Your task to perform on an android device: open app "Viber Messenger" (install if not already installed) and go to login screen Image 0: 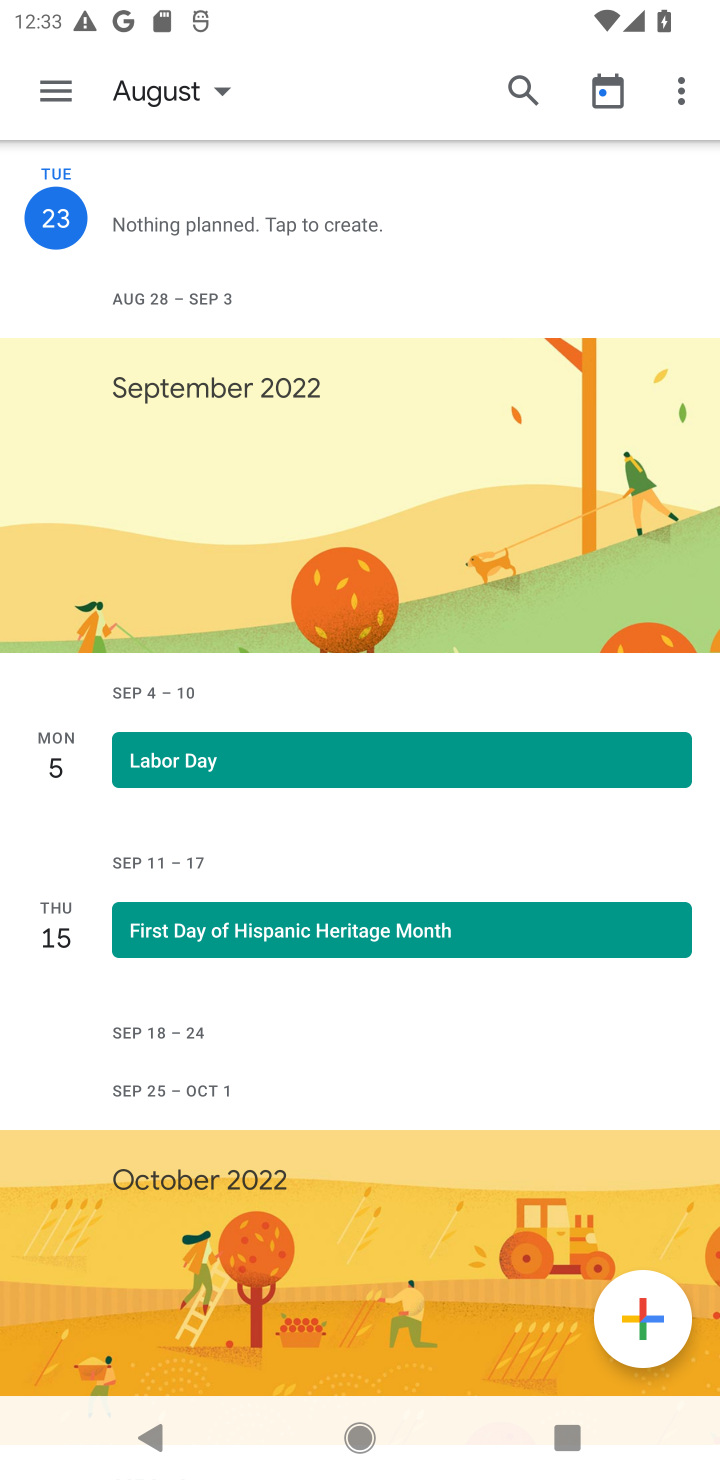
Step 0: press home button
Your task to perform on an android device: open app "Viber Messenger" (install if not already installed) and go to login screen Image 1: 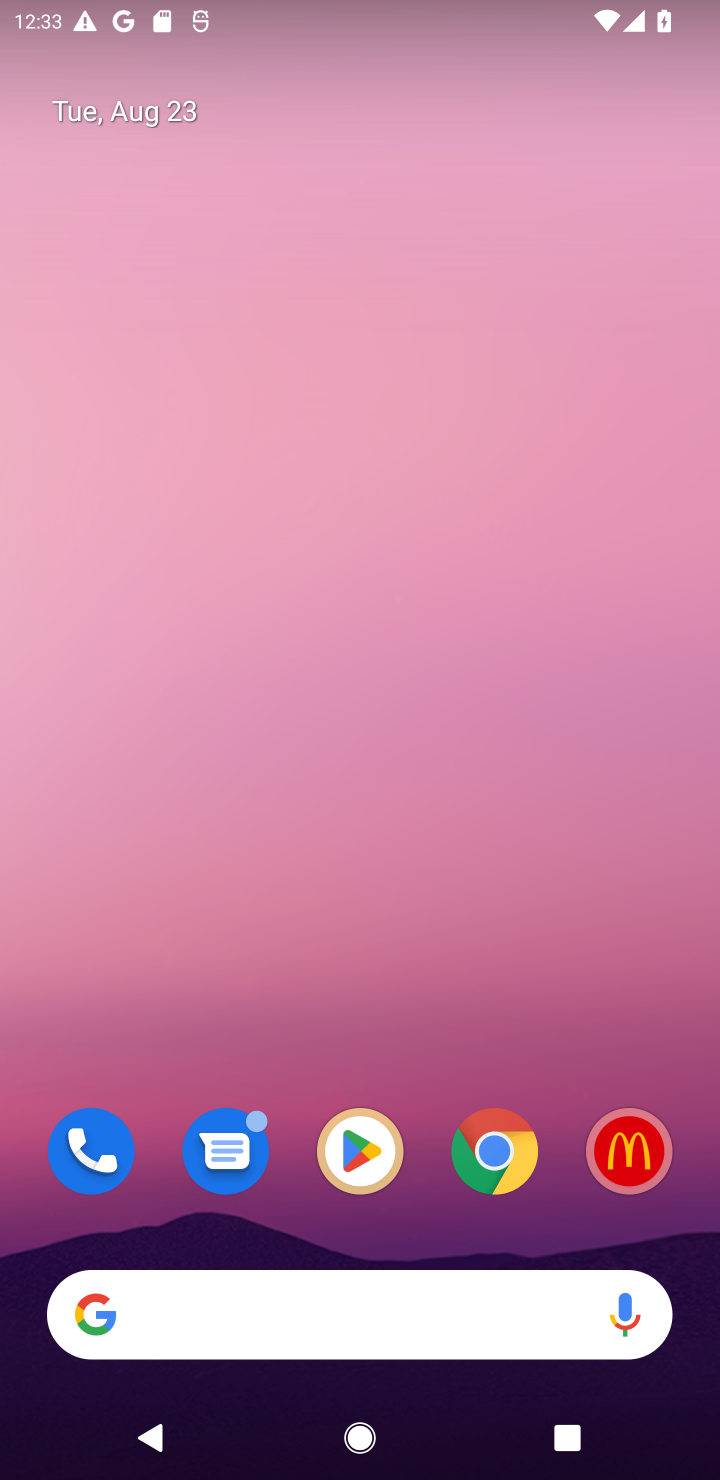
Step 1: click (364, 1155)
Your task to perform on an android device: open app "Viber Messenger" (install if not already installed) and go to login screen Image 2: 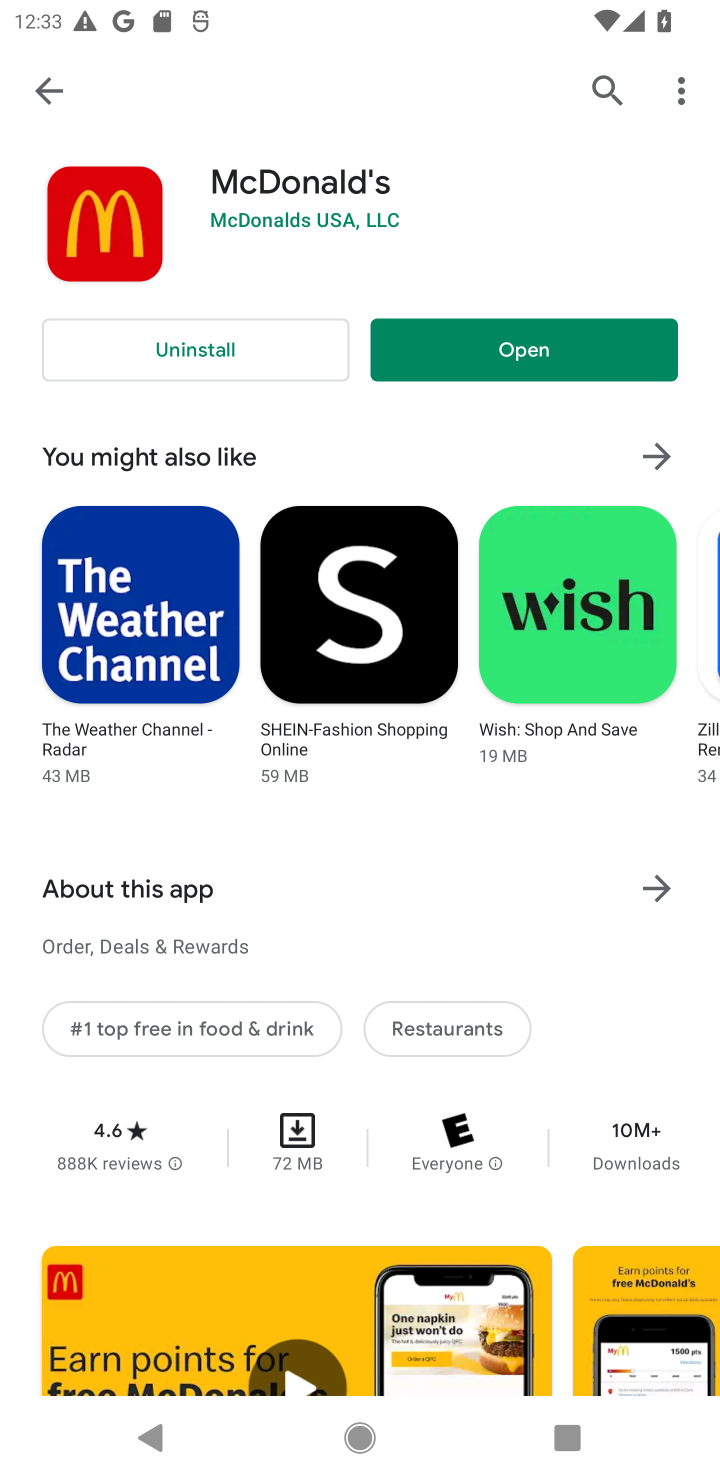
Step 2: click (616, 77)
Your task to perform on an android device: open app "Viber Messenger" (install if not already installed) and go to login screen Image 3: 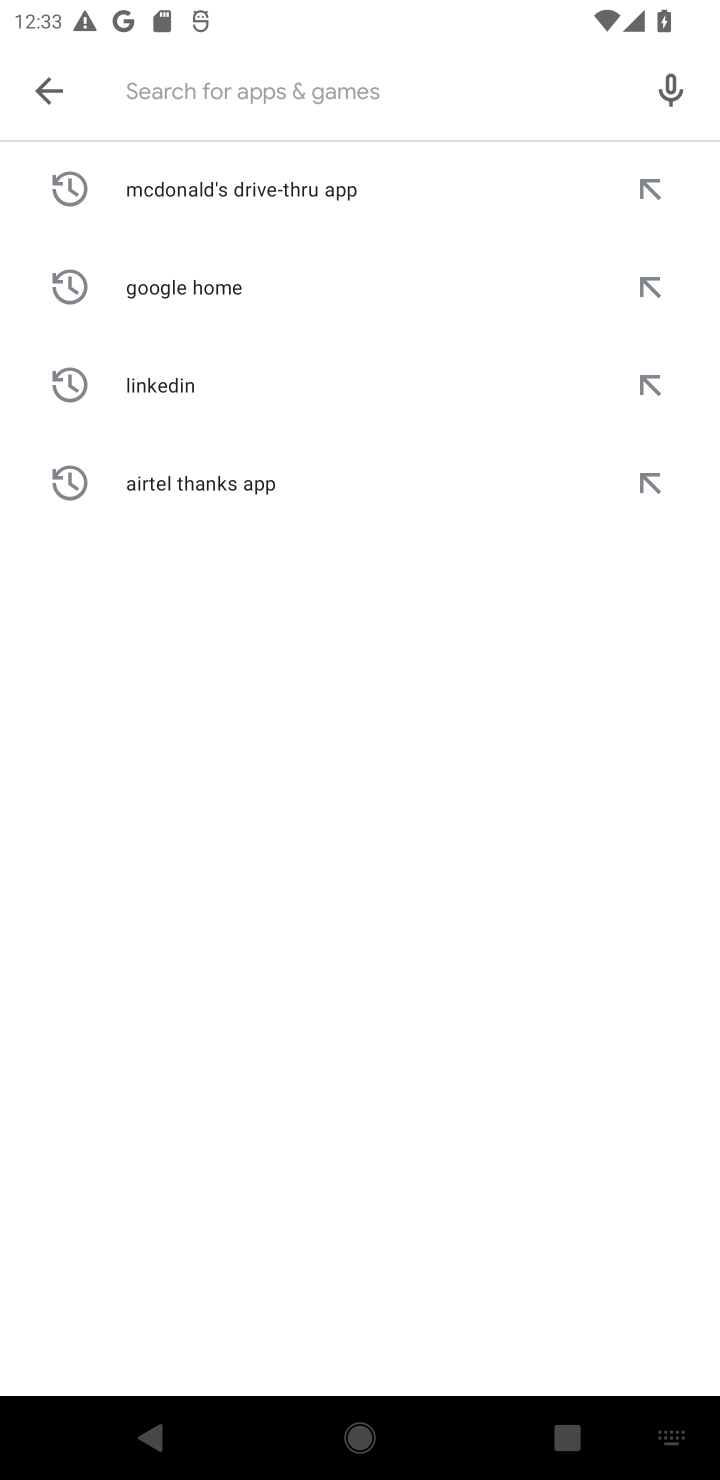
Step 3: type "Viber Messenger"
Your task to perform on an android device: open app "Viber Messenger" (install if not already installed) and go to login screen Image 4: 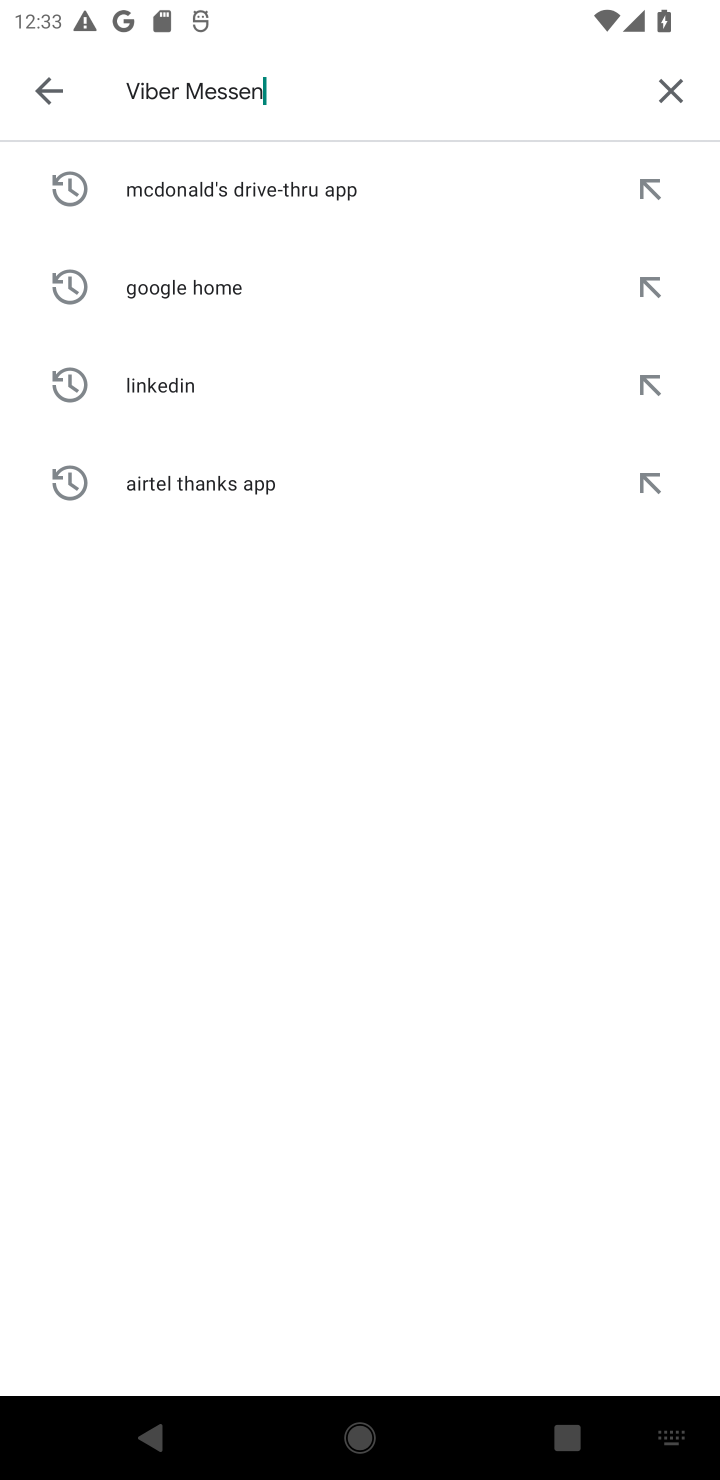
Step 4: type ""
Your task to perform on an android device: open app "Viber Messenger" (install if not already installed) and go to login screen Image 5: 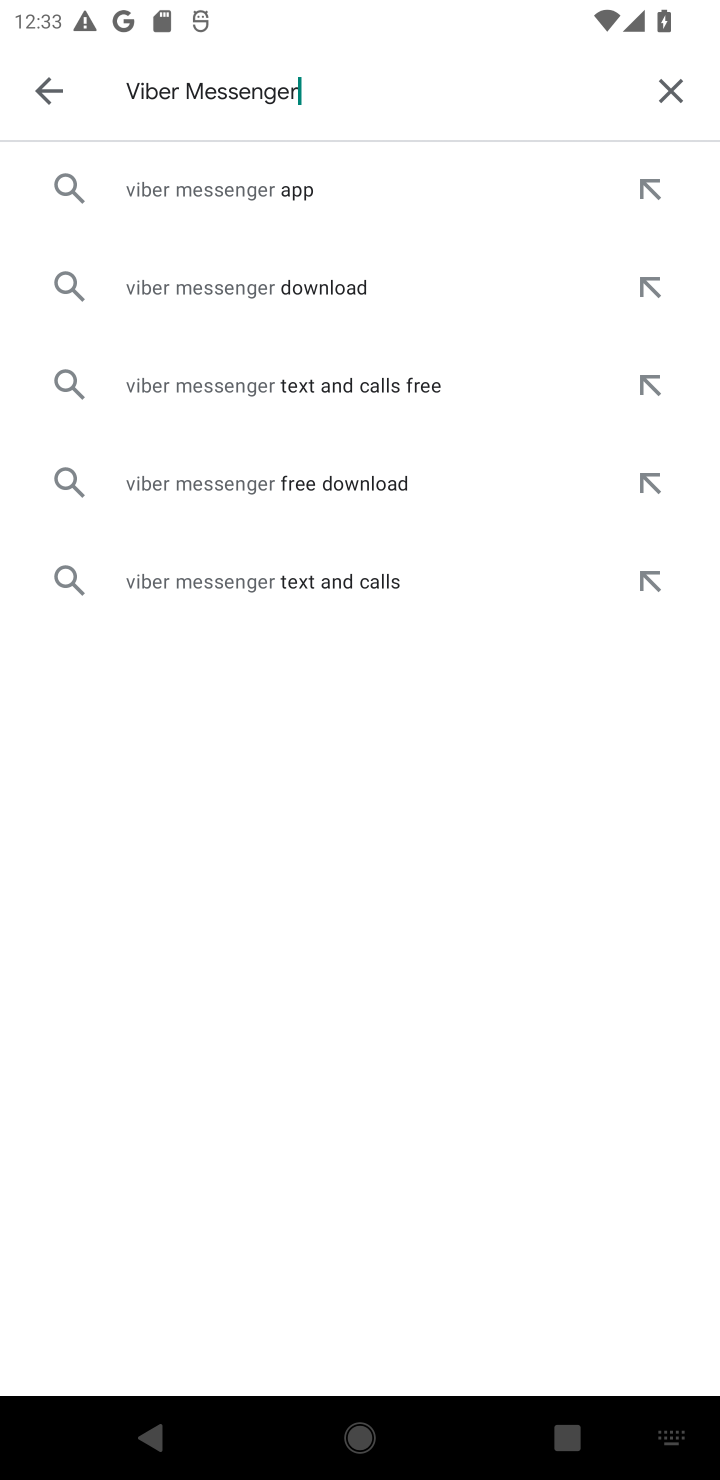
Step 5: click (372, 203)
Your task to perform on an android device: open app "Viber Messenger" (install if not already installed) and go to login screen Image 6: 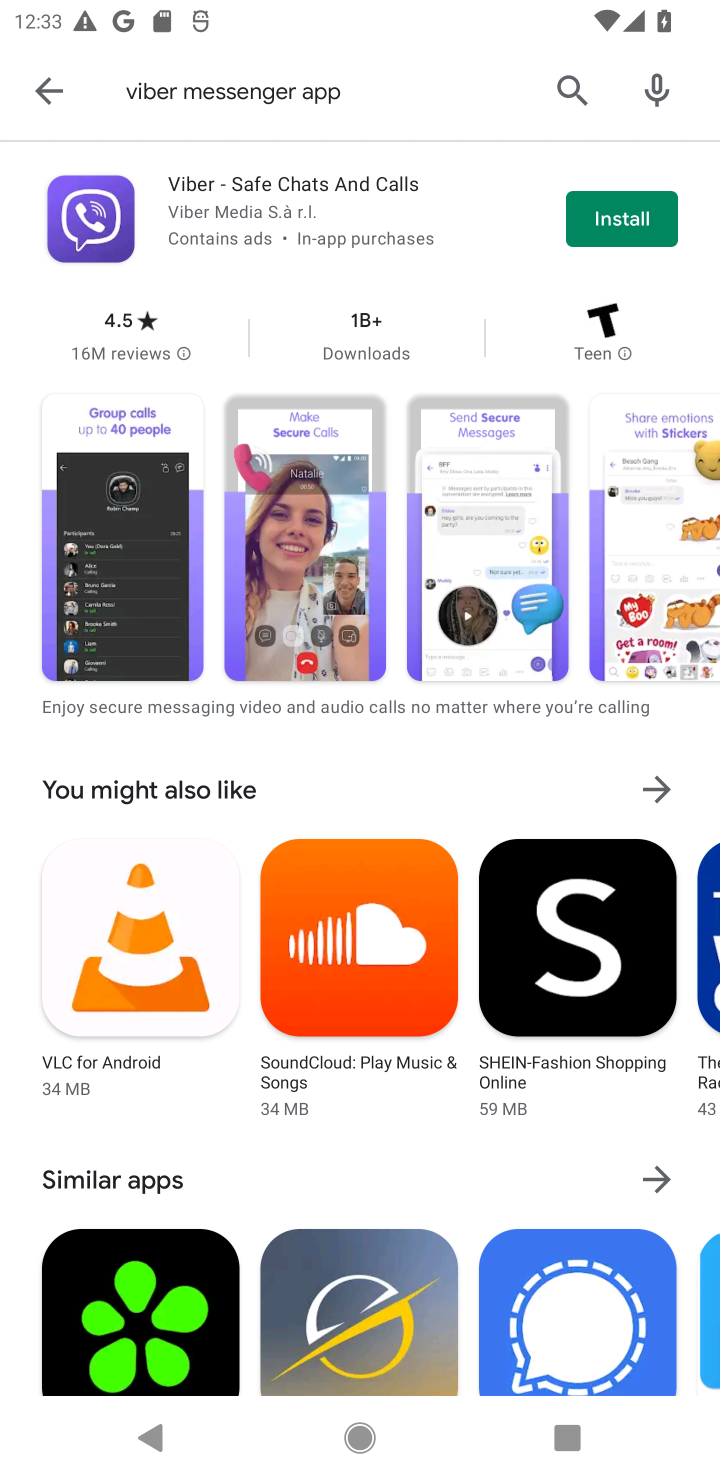
Step 6: click (634, 218)
Your task to perform on an android device: open app "Viber Messenger" (install if not already installed) and go to login screen Image 7: 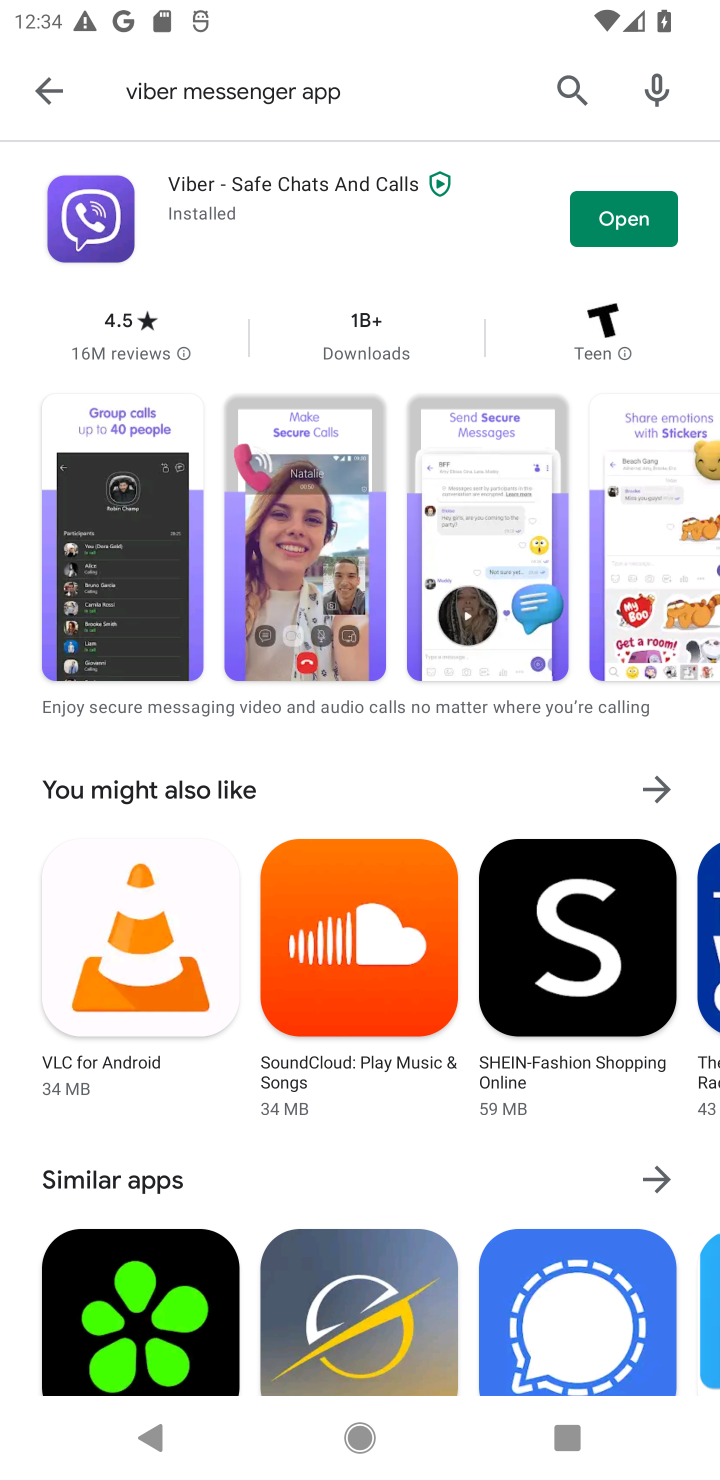
Step 7: click (632, 226)
Your task to perform on an android device: open app "Viber Messenger" (install if not already installed) and go to login screen Image 8: 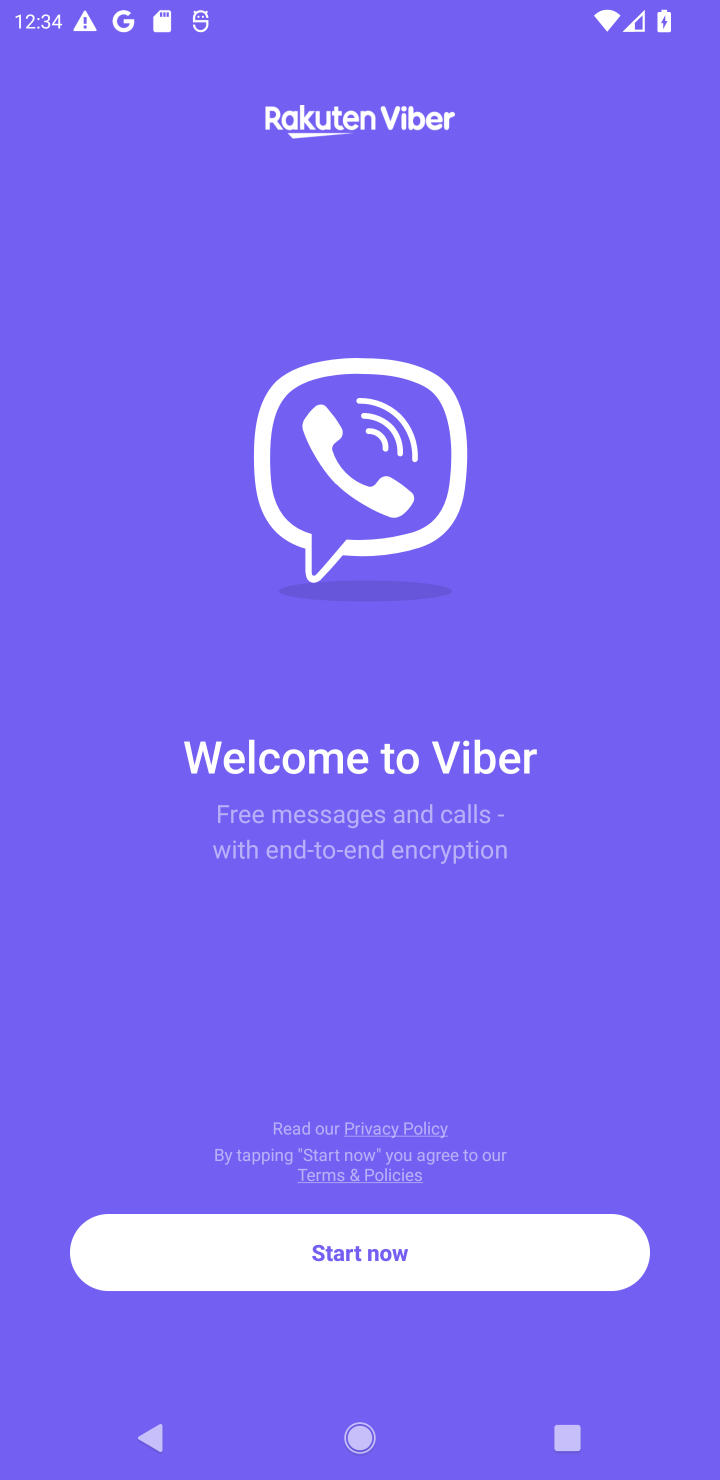
Step 8: task complete